Your task to perform on an android device: Open privacy settings Image 0: 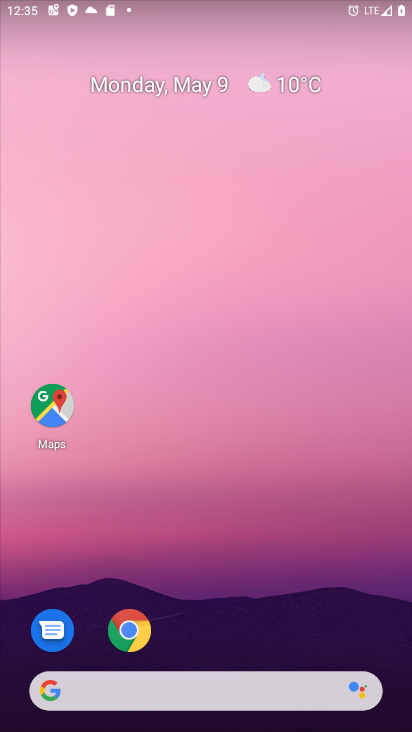
Step 0: drag from (316, 620) to (332, 41)
Your task to perform on an android device: Open privacy settings Image 1: 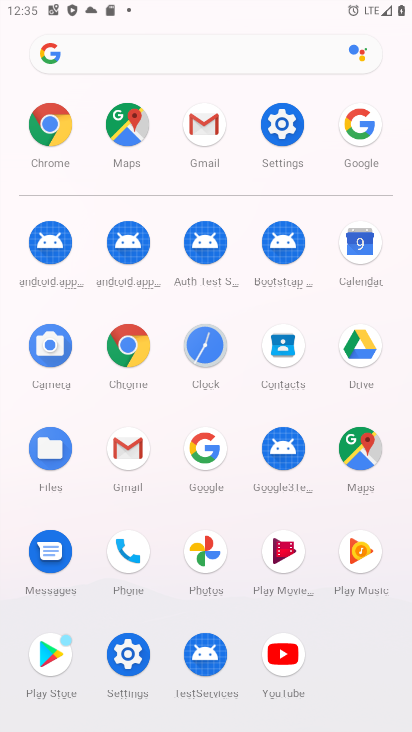
Step 1: click (140, 633)
Your task to perform on an android device: Open privacy settings Image 2: 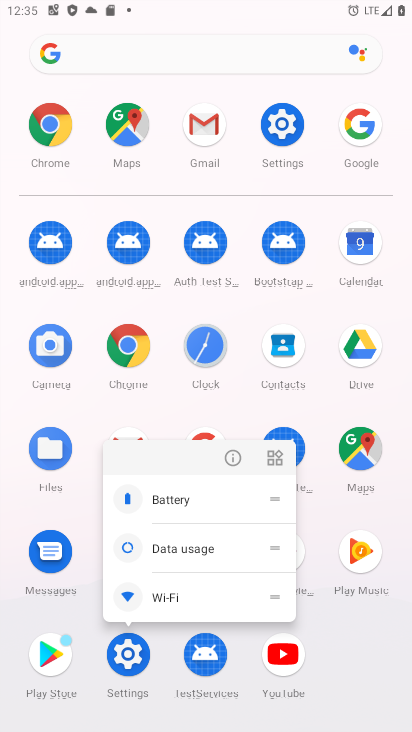
Step 2: click (115, 646)
Your task to perform on an android device: Open privacy settings Image 3: 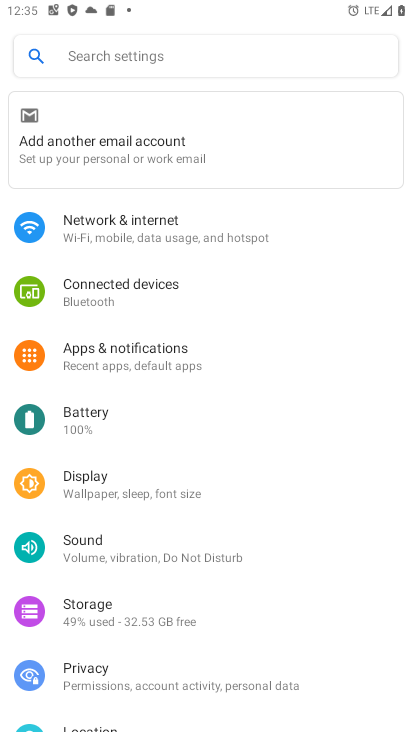
Step 3: click (107, 683)
Your task to perform on an android device: Open privacy settings Image 4: 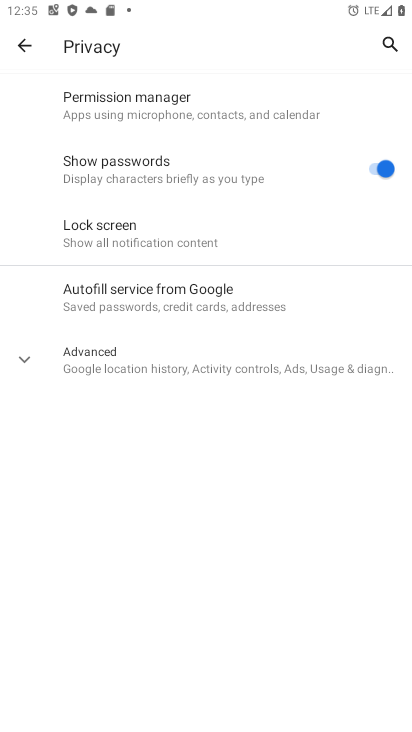
Step 4: task complete